Your task to perform on an android device: Open eBay Image 0: 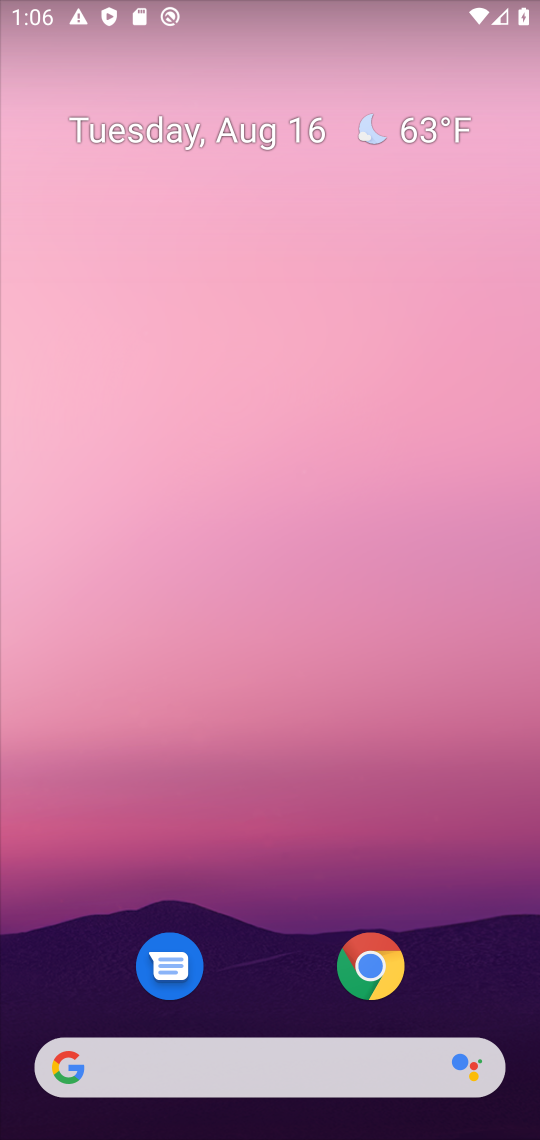
Step 0: press home button
Your task to perform on an android device: Open eBay Image 1: 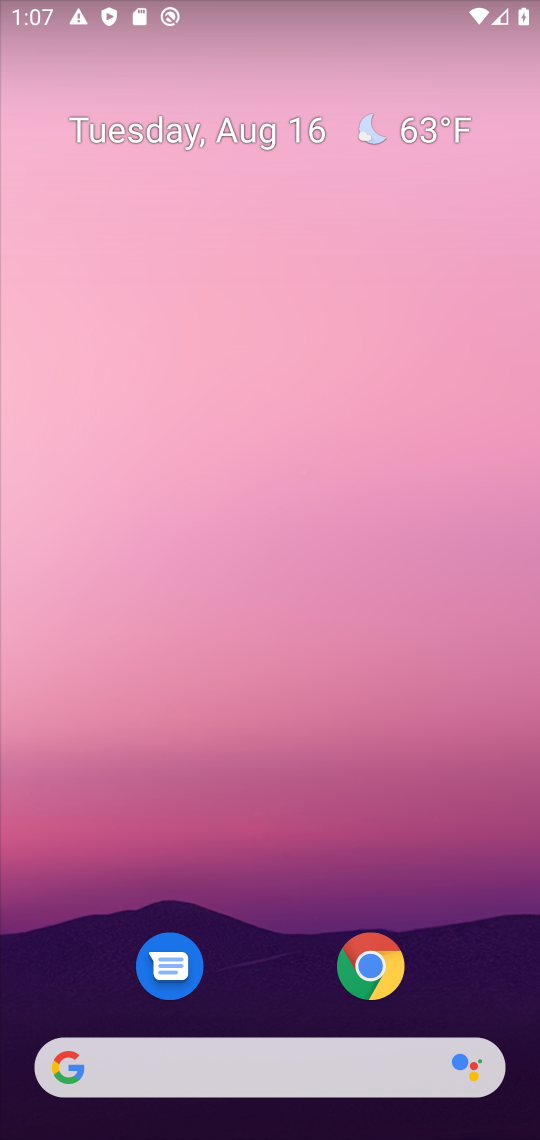
Step 1: click (359, 964)
Your task to perform on an android device: Open eBay Image 2: 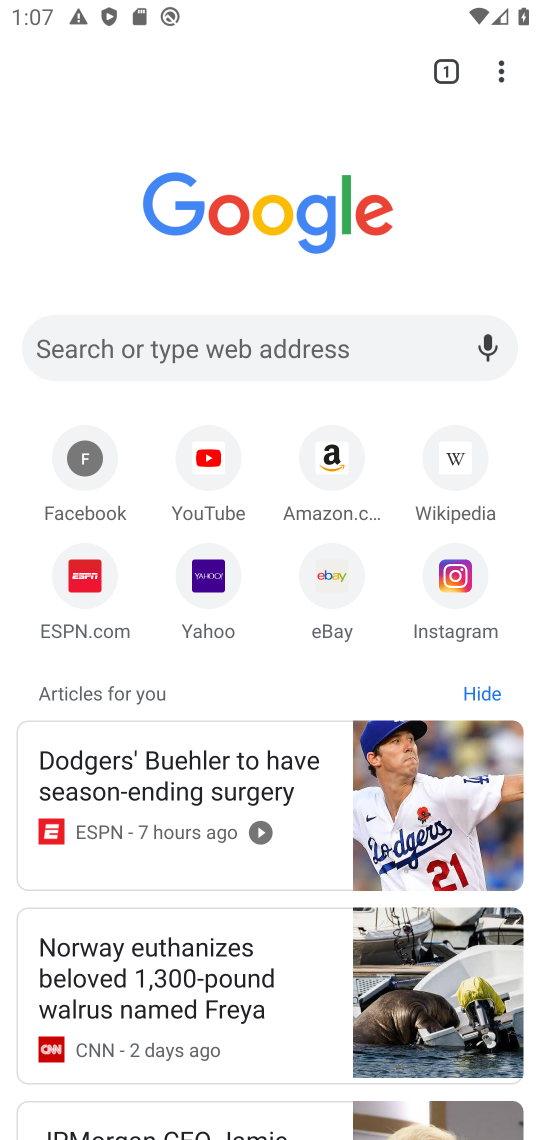
Step 2: click (320, 578)
Your task to perform on an android device: Open eBay Image 3: 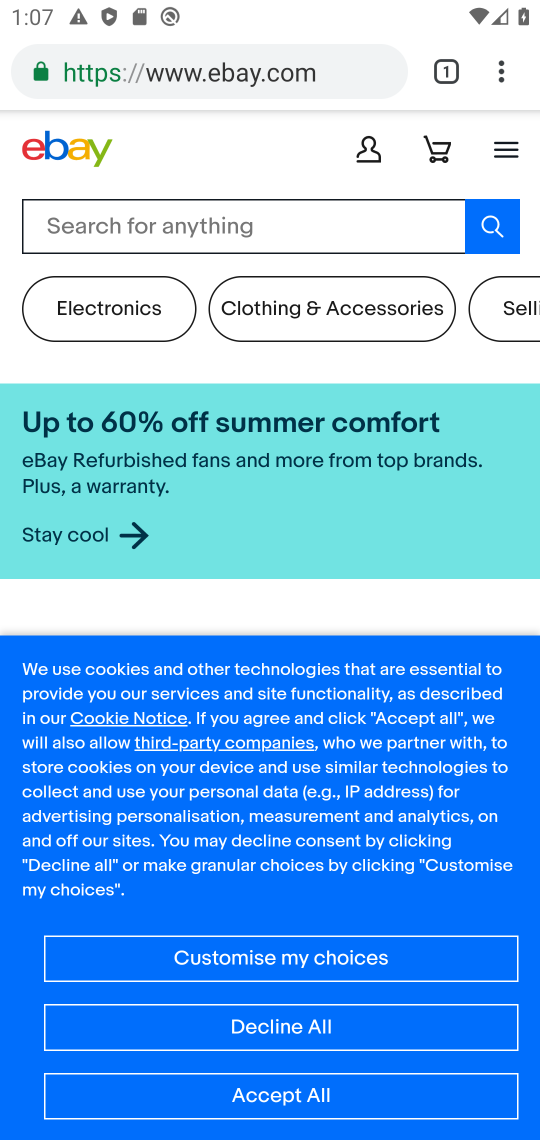
Step 3: task complete